Your task to perform on an android device: What's a good restaurant in San Francisco? Image 0: 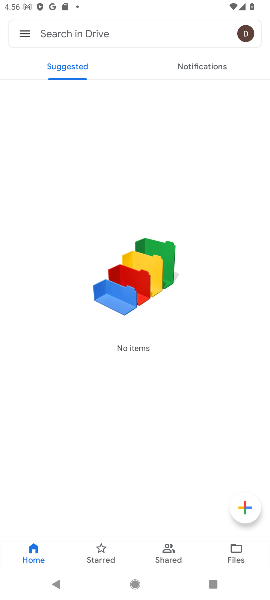
Step 0: press home button
Your task to perform on an android device: What's a good restaurant in San Francisco? Image 1: 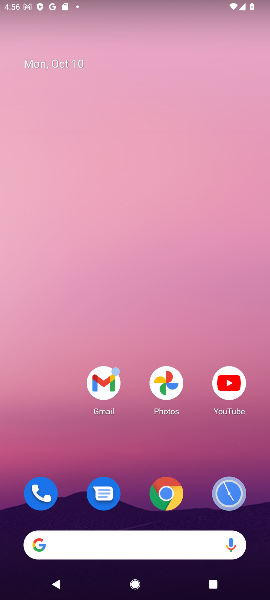
Step 1: click (150, 548)
Your task to perform on an android device: What's a good restaurant in San Francisco? Image 2: 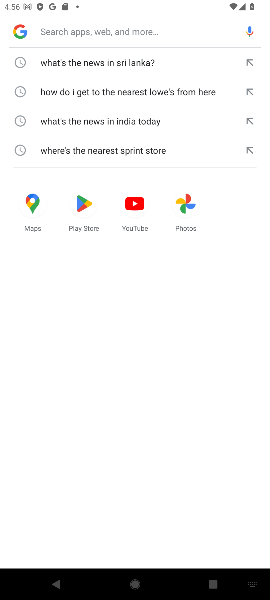
Step 2: type "What's a good restaurant in San Francisco"
Your task to perform on an android device: What's a good restaurant in San Francisco? Image 3: 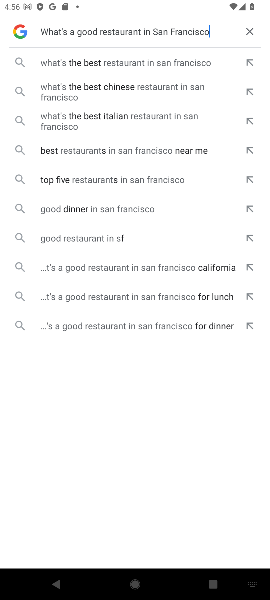
Step 3: click (162, 53)
Your task to perform on an android device: What's a good restaurant in San Francisco? Image 4: 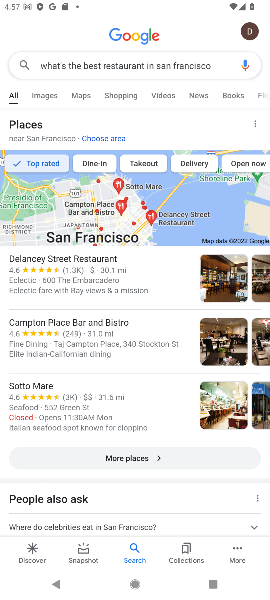
Step 4: task complete